Your task to perform on an android device: Open Google Chrome Image 0: 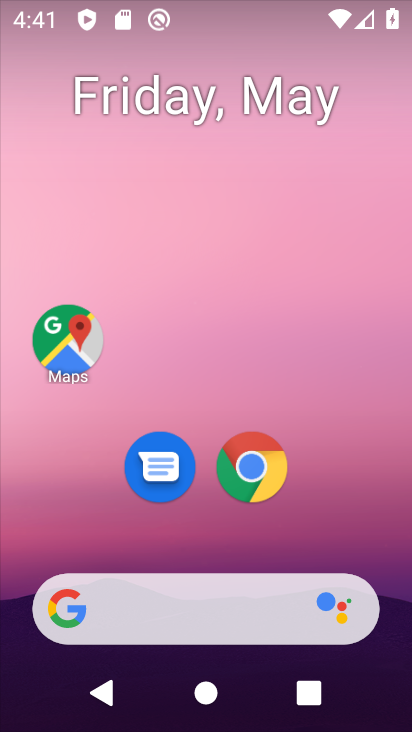
Step 0: click (267, 472)
Your task to perform on an android device: Open Google Chrome Image 1: 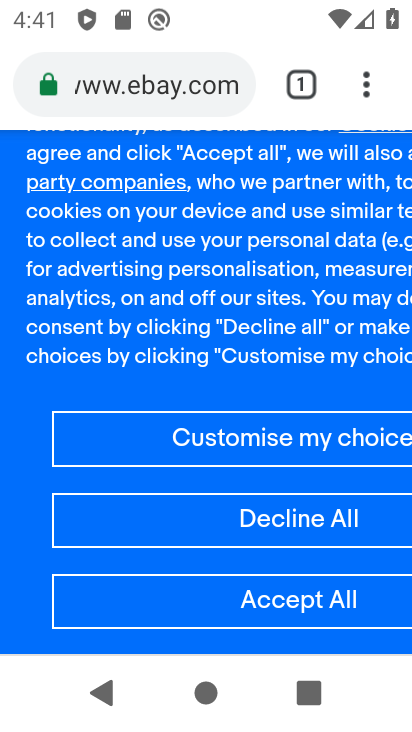
Step 1: task complete